Your task to perform on an android device: turn smart compose on in the gmail app Image 0: 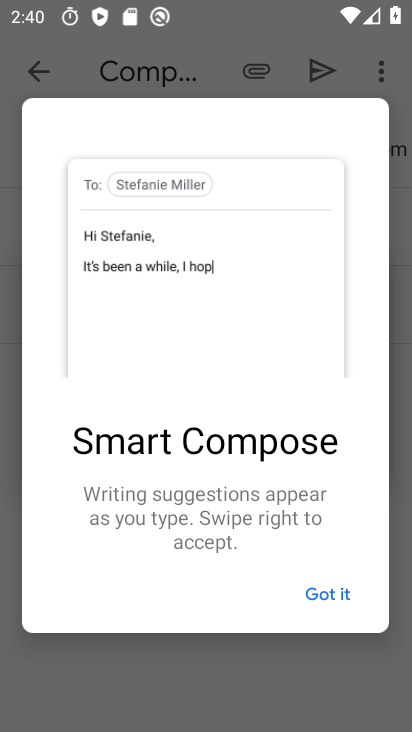
Step 0: press home button
Your task to perform on an android device: turn smart compose on in the gmail app Image 1: 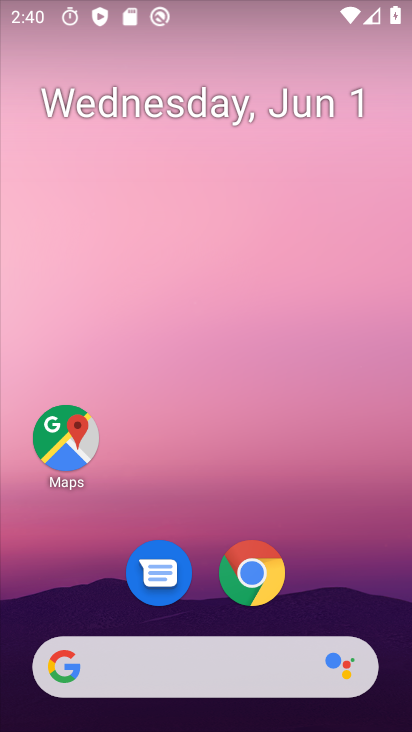
Step 1: drag from (193, 612) to (214, 307)
Your task to perform on an android device: turn smart compose on in the gmail app Image 2: 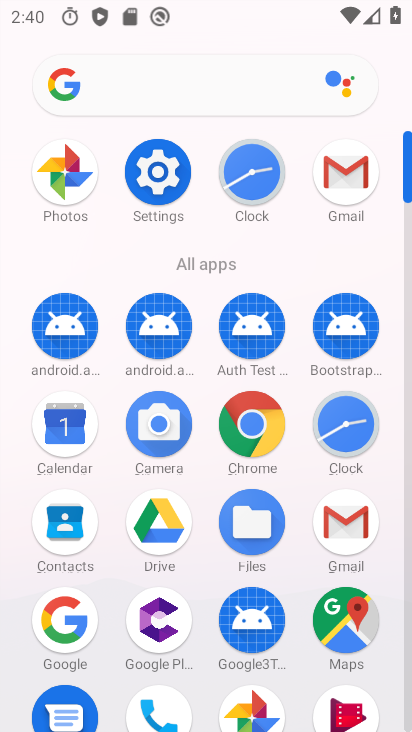
Step 2: click (347, 194)
Your task to perform on an android device: turn smart compose on in the gmail app Image 3: 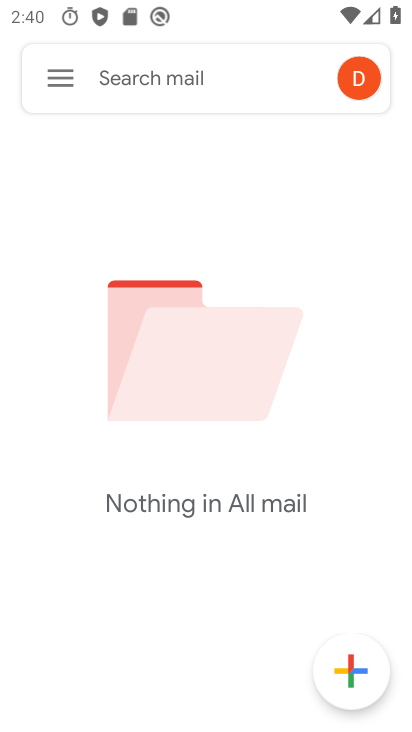
Step 3: click (63, 75)
Your task to perform on an android device: turn smart compose on in the gmail app Image 4: 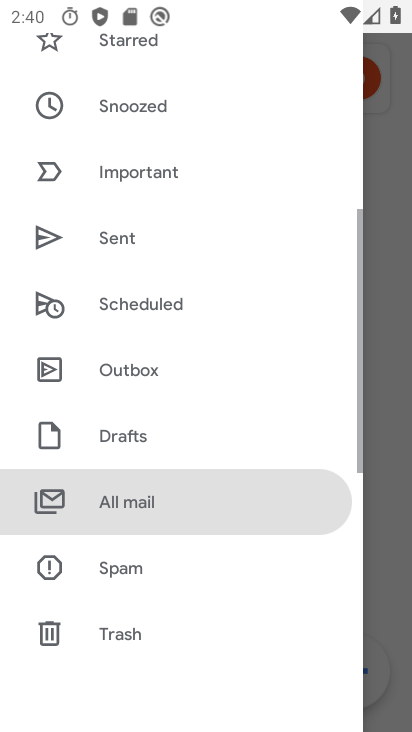
Step 4: drag from (168, 619) to (202, 274)
Your task to perform on an android device: turn smart compose on in the gmail app Image 5: 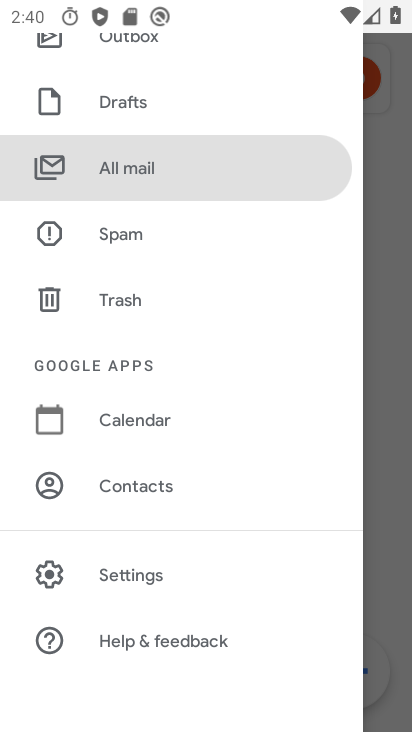
Step 5: click (155, 574)
Your task to perform on an android device: turn smart compose on in the gmail app Image 6: 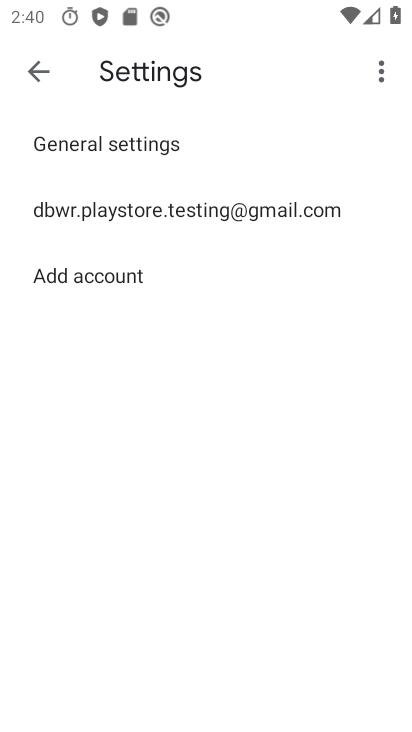
Step 6: click (168, 221)
Your task to perform on an android device: turn smart compose on in the gmail app Image 7: 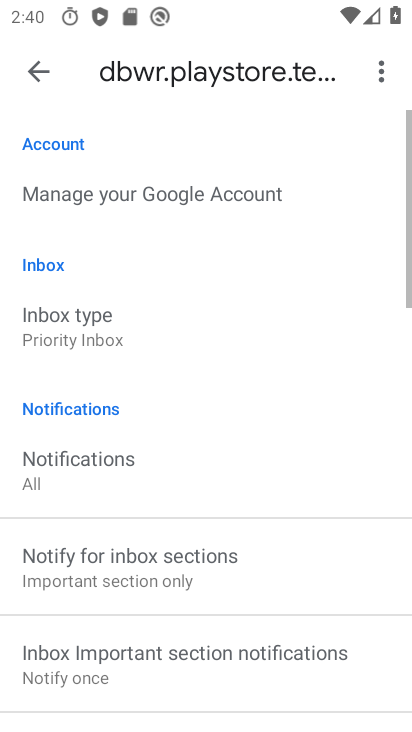
Step 7: task complete